Your task to perform on an android device: Open eBay Image 0: 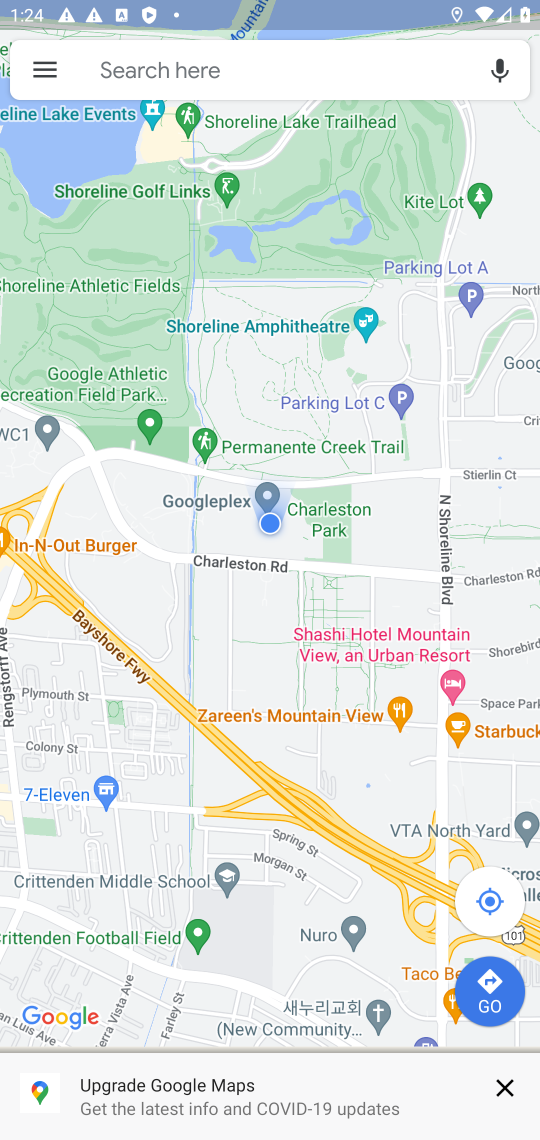
Step 0: press home button
Your task to perform on an android device: Open eBay Image 1: 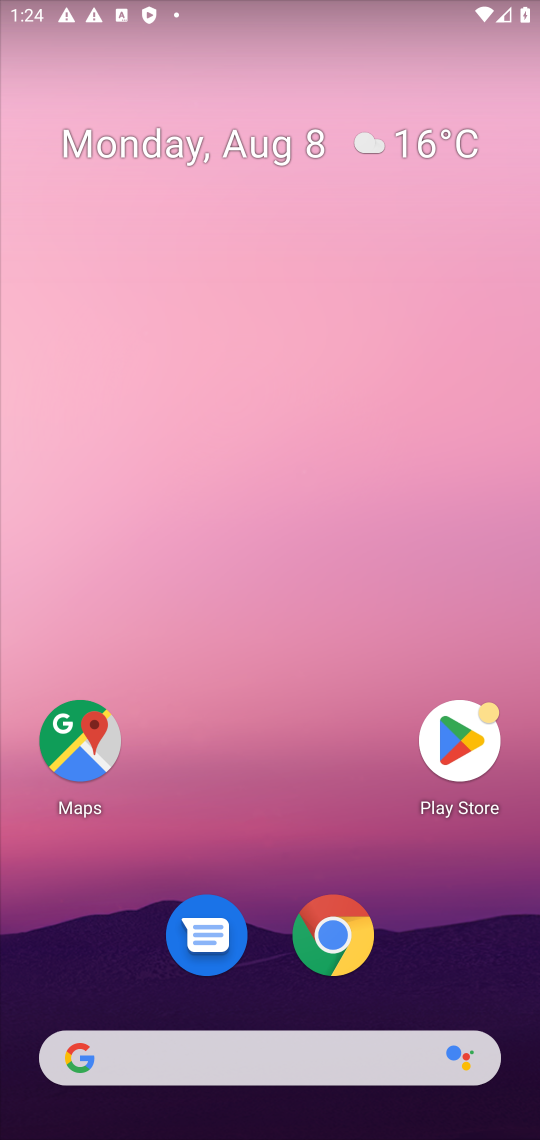
Step 1: drag from (288, 1057) to (264, 44)
Your task to perform on an android device: Open eBay Image 2: 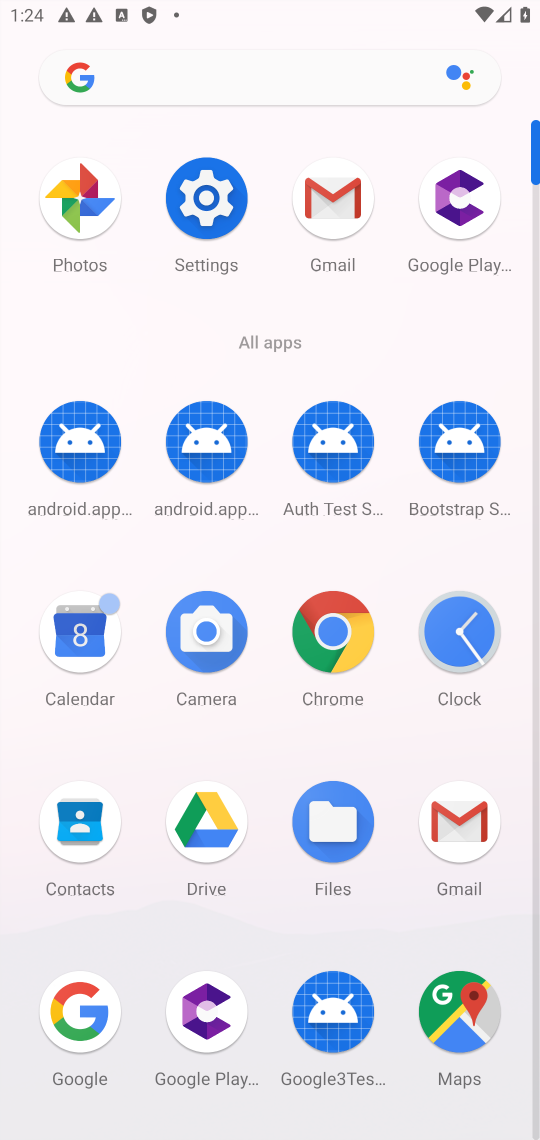
Step 2: click (332, 640)
Your task to perform on an android device: Open eBay Image 3: 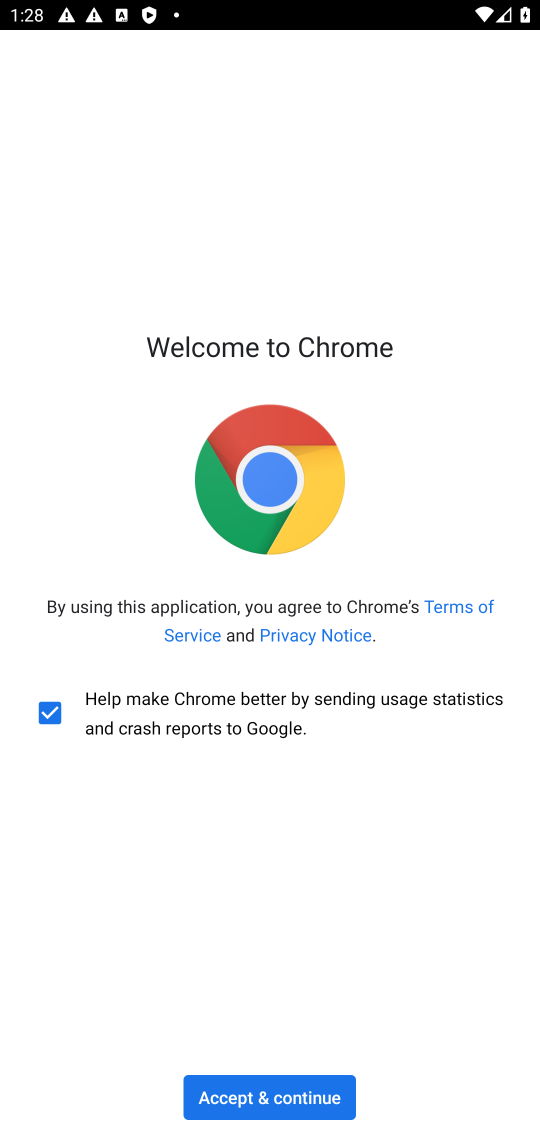
Step 3: click (314, 1072)
Your task to perform on an android device: Open eBay Image 4: 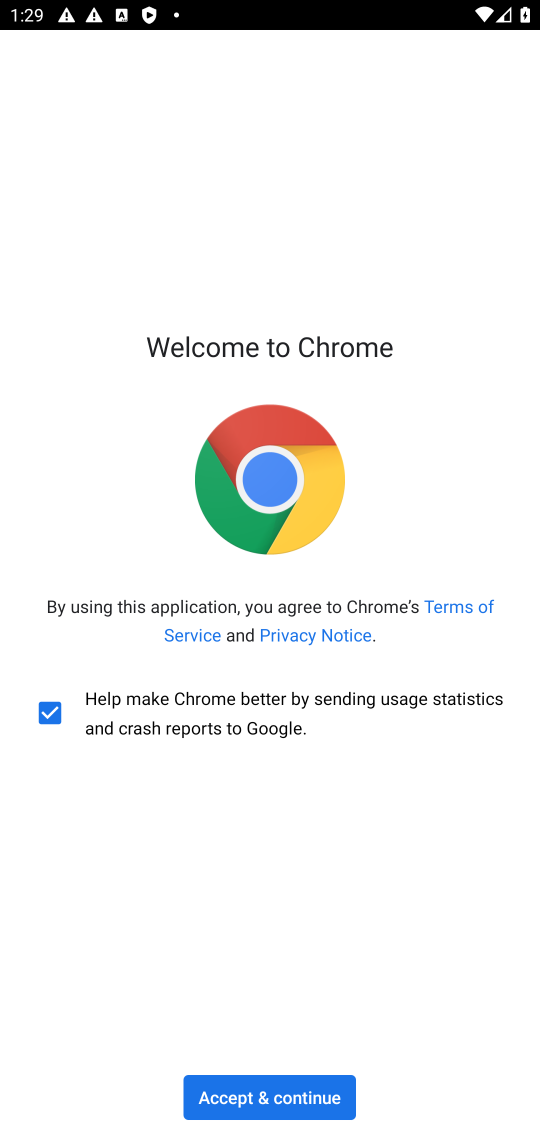
Step 4: click (248, 1113)
Your task to perform on an android device: Open eBay Image 5: 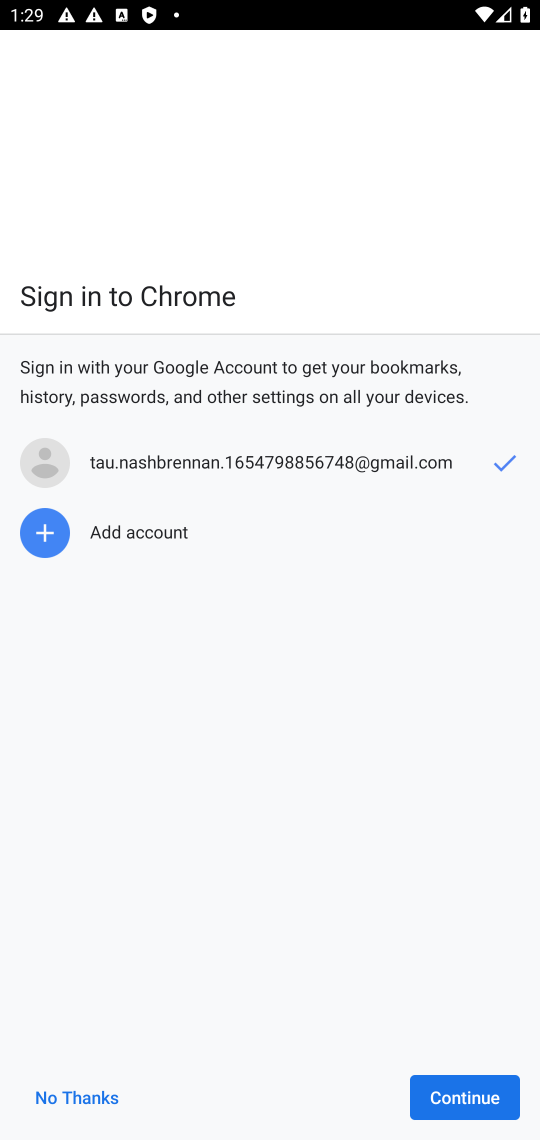
Step 5: click (66, 1098)
Your task to perform on an android device: Open eBay Image 6: 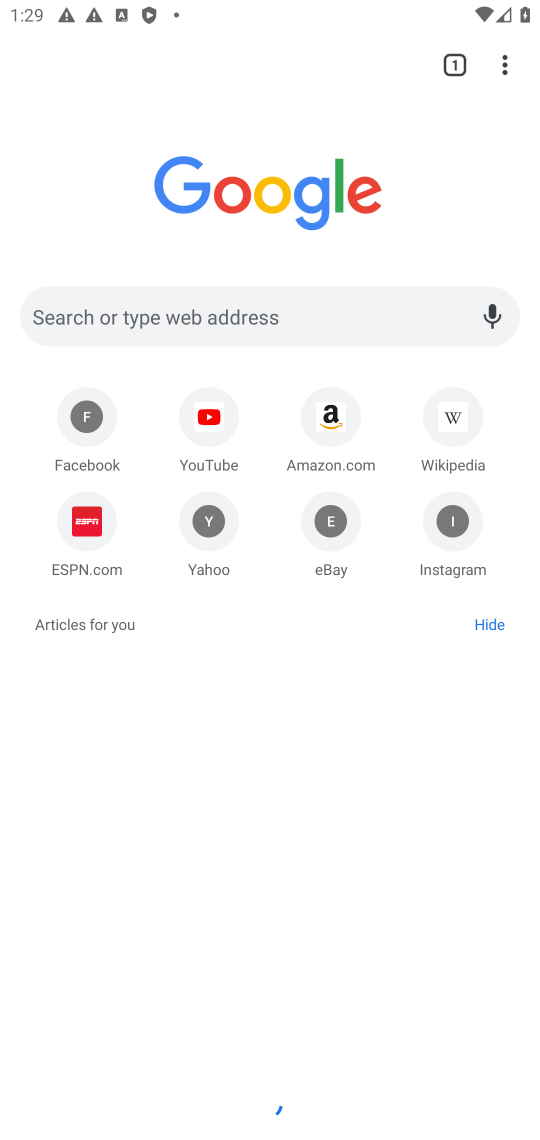
Step 6: click (325, 526)
Your task to perform on an android device: Open eBay Image 7: 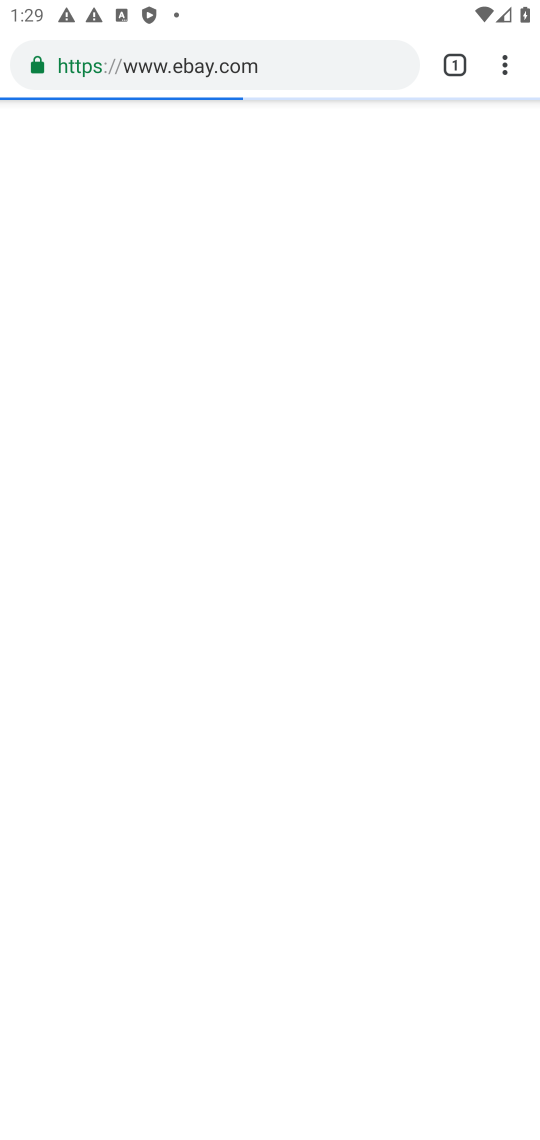
Step 7: task complete